Your task to perform on an android device: check battery use Image 0: 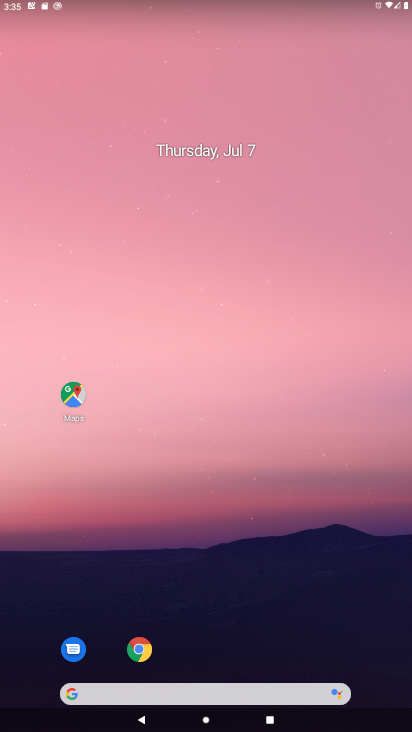
Step 0: drag from (197, 581) to (254, 64)
Your task to perform on an android device: check battery use Image 1: 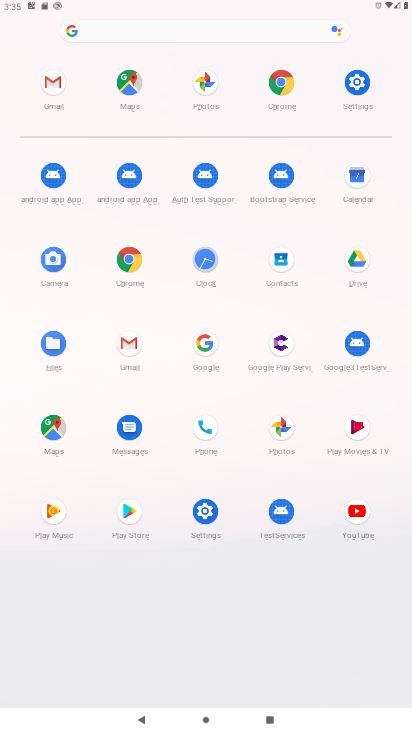
Step 1: click (348, 81)
Your task to perform on an android device: check battery use Image 2: 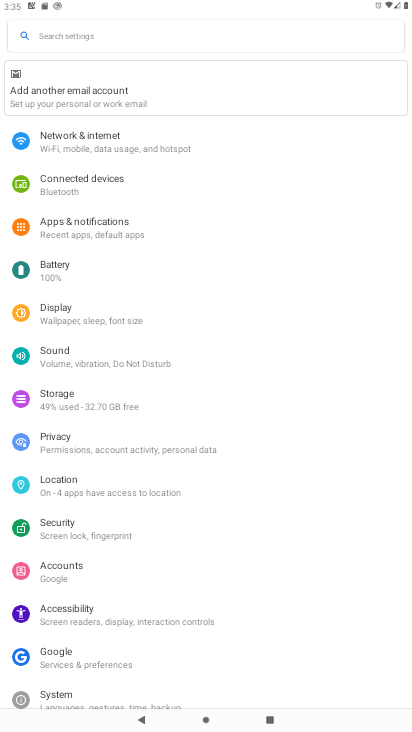
Step 2: click (121, 259)
Your task to perform on an android device: check battery use Image 3: 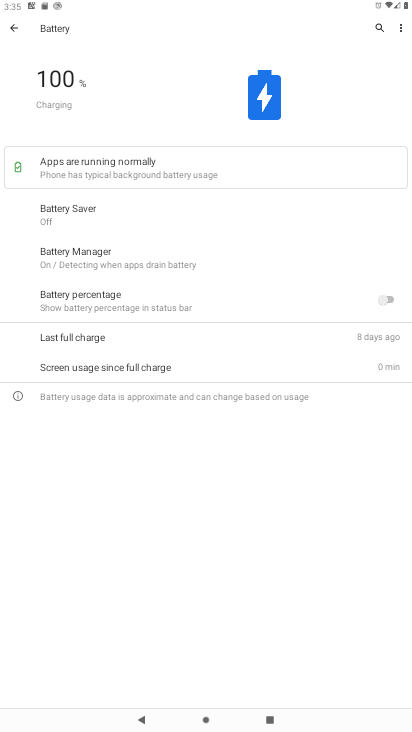
Step 3: click (398, 28)
Your task to perform on an android device: check battery use Image 4: 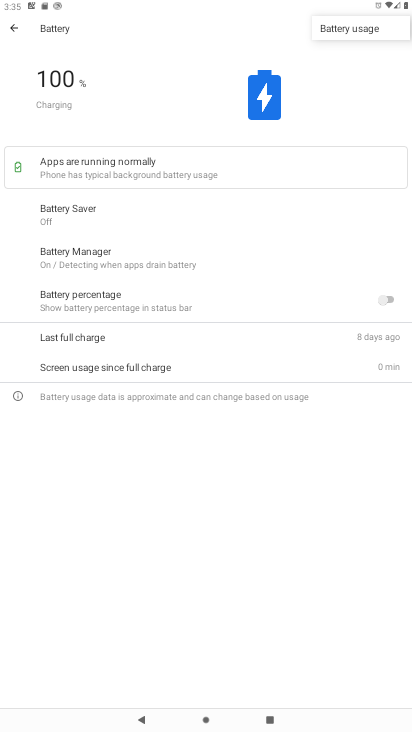
Step 4: click (327, 32)
Your task to perform on an android device: check battery use Image 5: 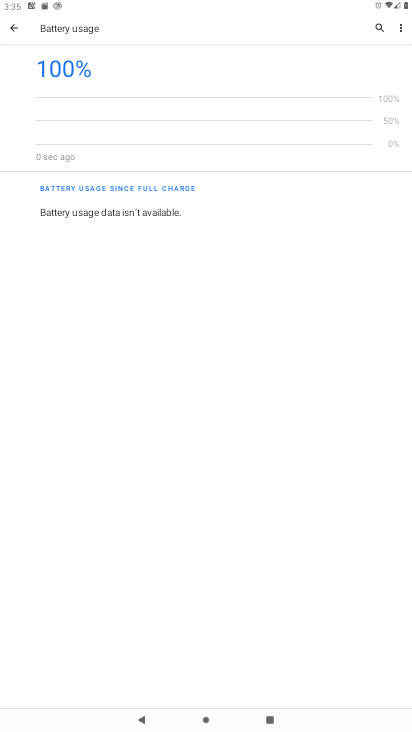
Step 5: task complete